Your task to perform on an android device: toggle sleep mode Image 0: 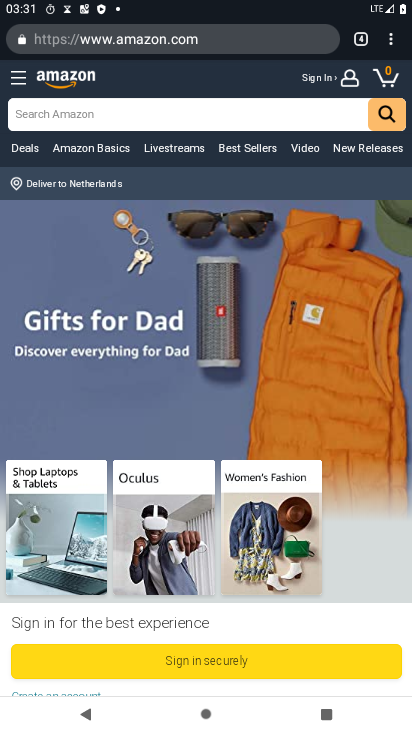
Step 0: press home button
Your task to perform on an android device: toggle sleep mode Image 1: 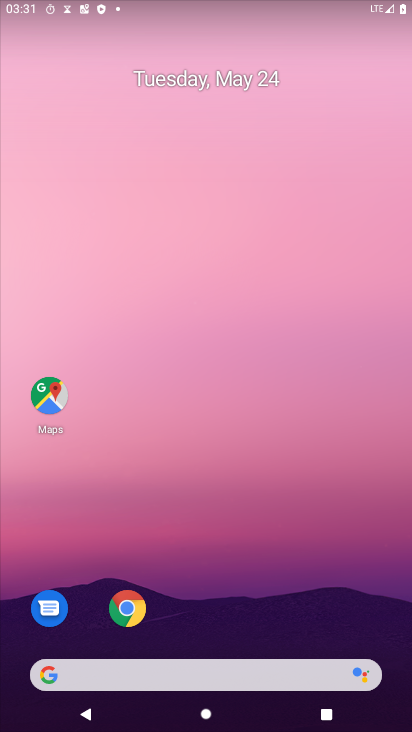
Step 1: drag from (239, 641) to (180, 237)
Your task to perform on an android device: toggle sleep mode Image 2: 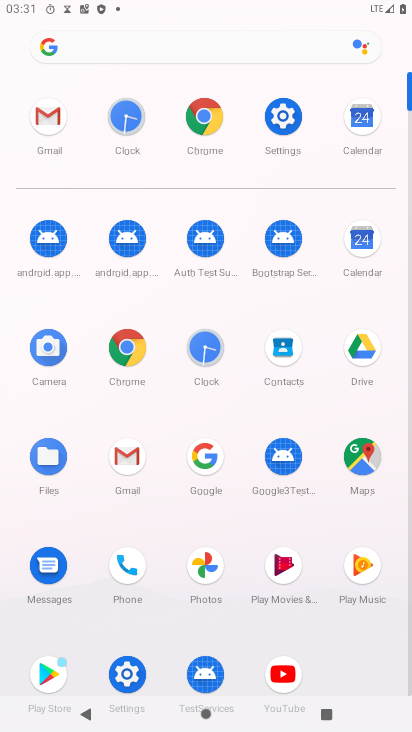
Step 2: click (287, 116)
Your task to perform on an android device: toggle sleep mode Image 3: 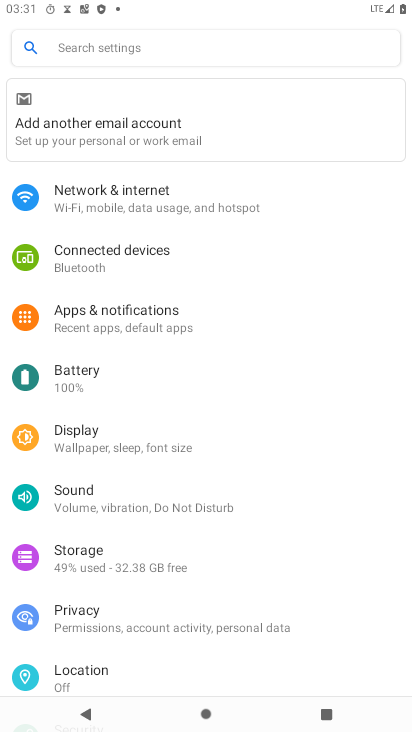
Step 3: click (162, 433)
Your task to perform on an android device: toggle sleep mode Image 4: 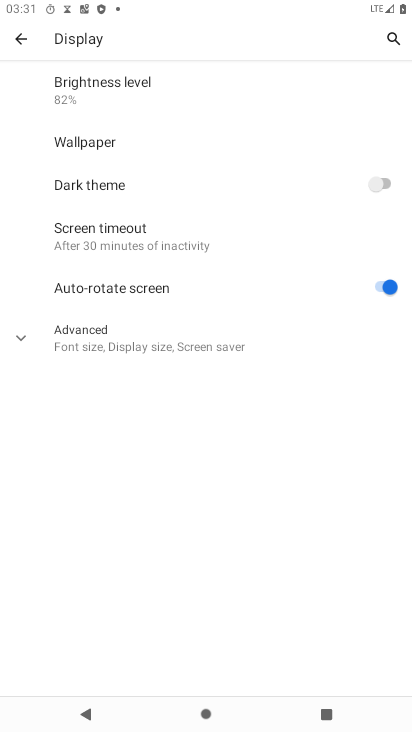
Step 4: click (231, 349)
Your task to perform on an android device: toggle sleep mode Image 5: 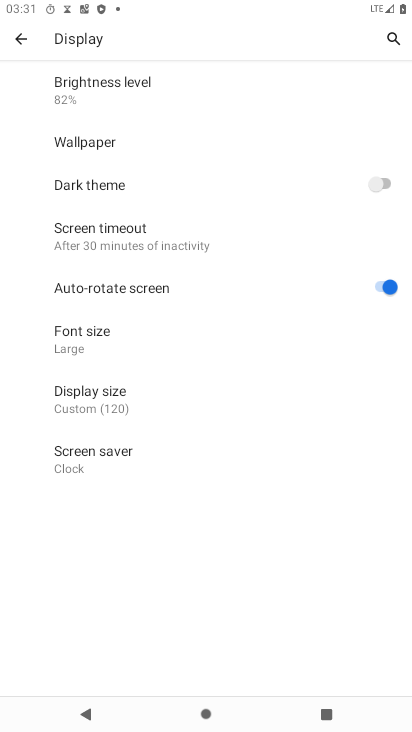
Step 5: task complete